Your task to perform on an android device: When is my next meeting? Image 0: 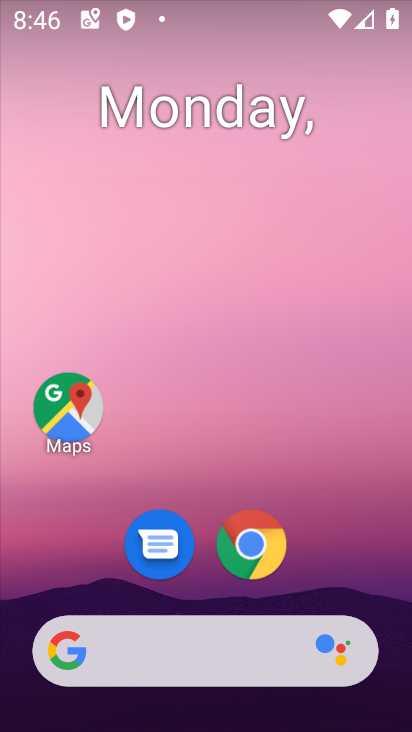
Step 0: drag from (342, 499) to (249, 123)
Your task to perform on an android device: When is my next meeting? Image 1: 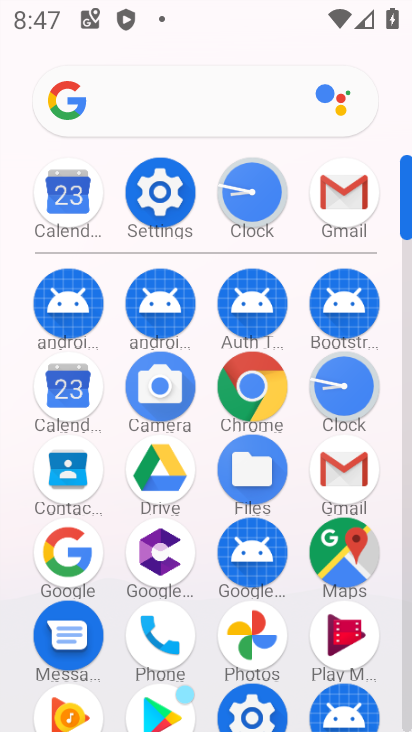
Step 1: click (54, 404)
Your task to perform on an android device: When is my next meeting? Image 2: 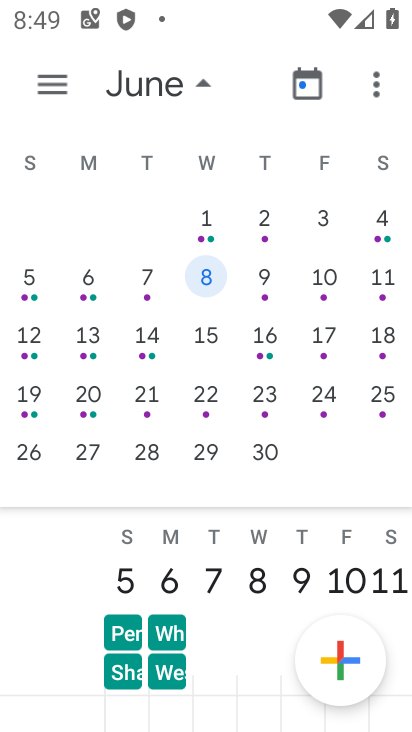
Step 2: drag from (59, 329) to (389, 302)
Your task to perform on an android device: When is my next meeting? Image 3: 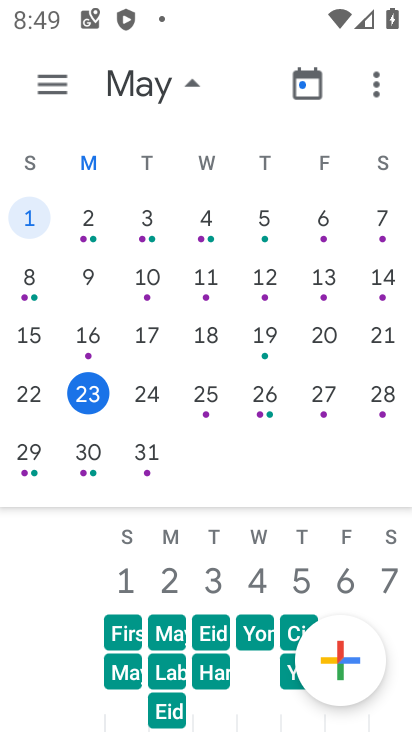
Step 3: click (92, 397)
Your task to perform on an android device: When is my next meeting? Image 4: 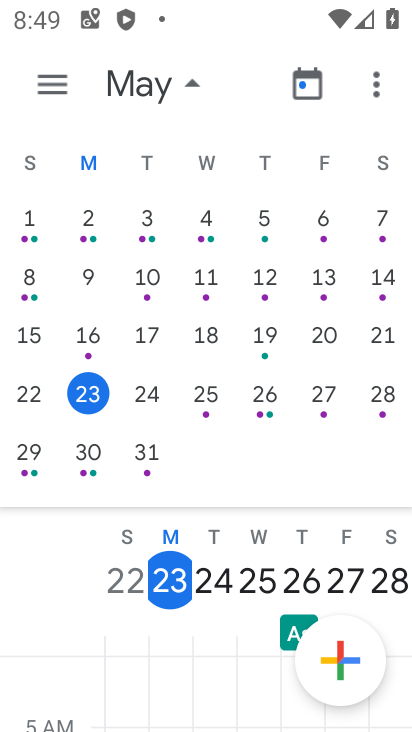
Step 4: task complete